Your task to perform on an android device: turn off priority inbox in the gmail app Image 0: 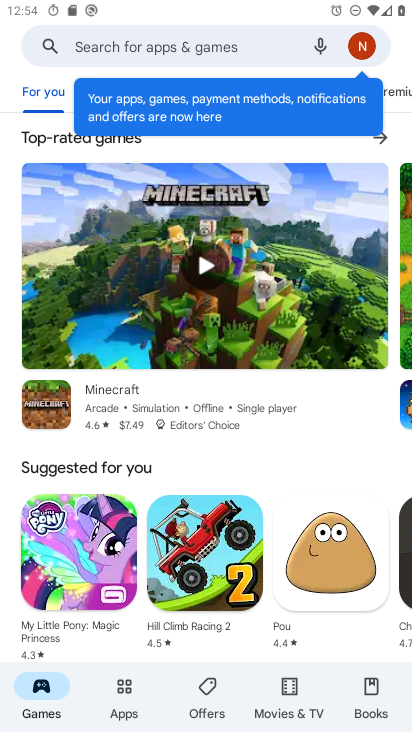
Step 0: press home button
Your task to perform on an android device: turn off priority inbox in the gmail app Image 1: 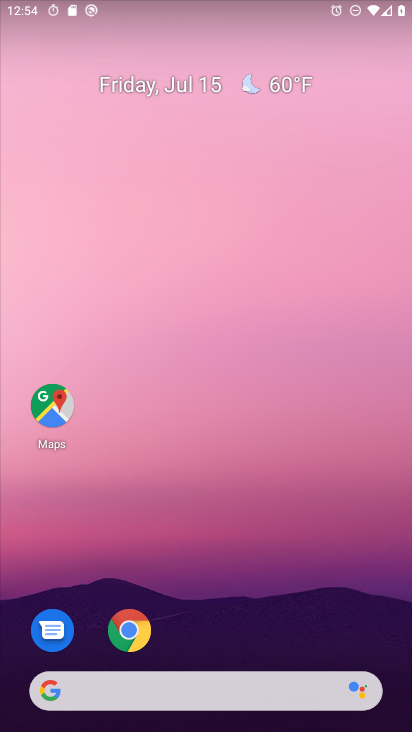
Step 1: drag from (220, 389) to (220, 255)
Your task to perform on an android device: turn off priority inbox in the gmail app Image 2: 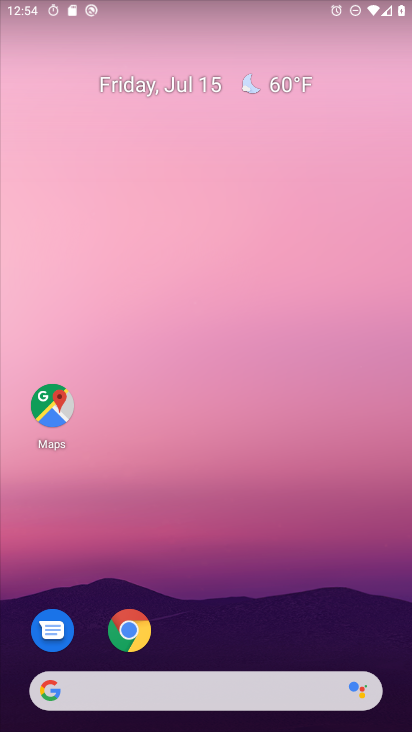
Step 2: drag from (185, 589) to (207, 210)
Your task to perform on an android device: turn off priority inbox in the gmail app Image 3: 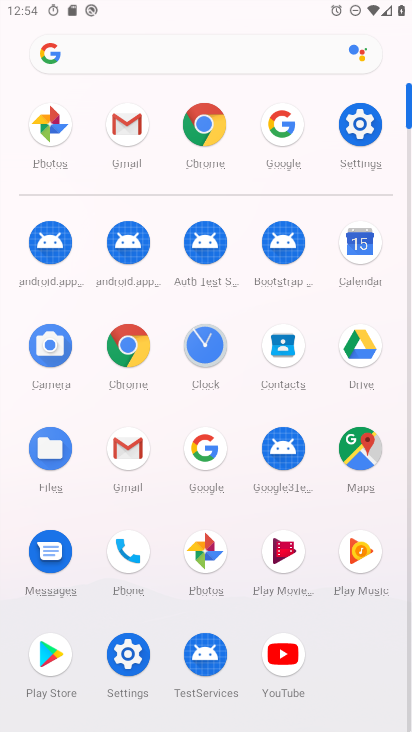
Step 3: click (115, 133)
Your task to perform on an android device: turn off priority inbox in the gmail app Image 4: 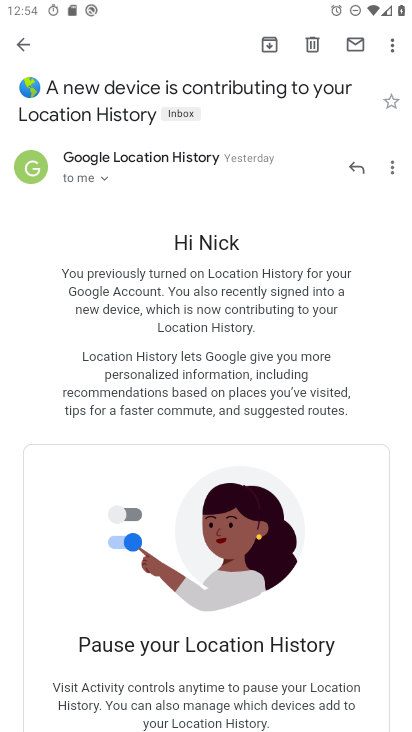
Step 4: click (25, 45)
Your task to perform on an android device: turn off priority inbox in the gmail app Image 5: 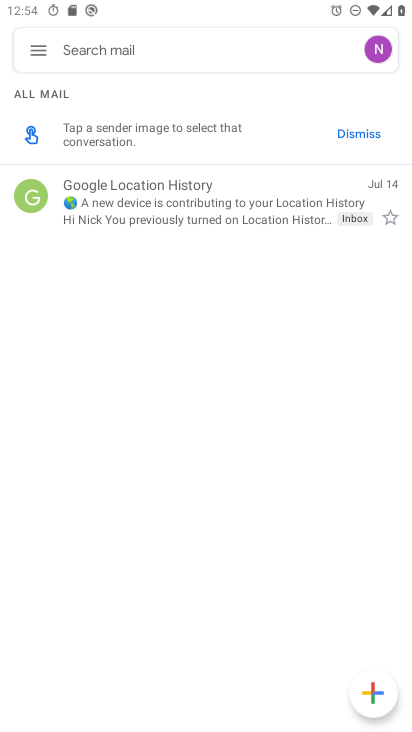
Step 5: click (34, 45)
Your task to perform on an android device: turn off priority inbox in the gmail app Image 6: 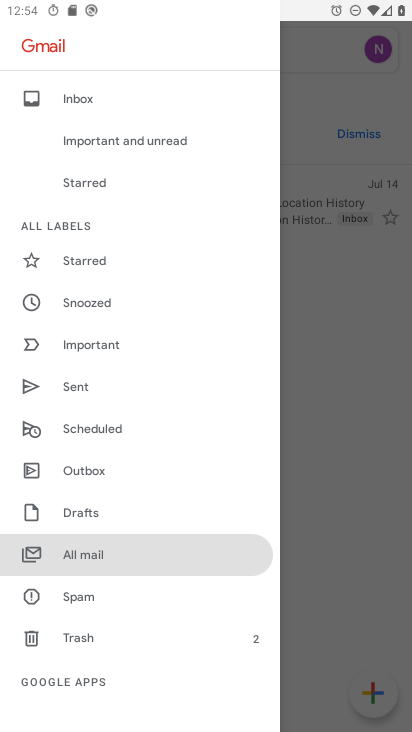
Step 6: drag from (93, 609) to (122, 314)
Your task to perform on an android device: turn off priority inbox in the gmail app Image 7: 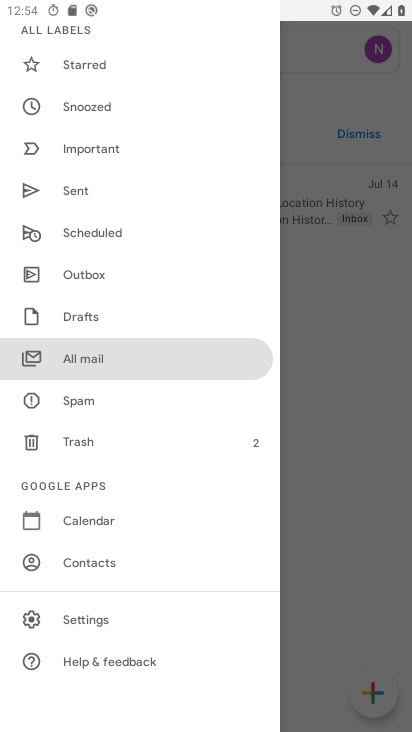
Step 7: click (91, 618)
Your task to perform on an android device: turn off priority inbox in the gmail app Image 8: 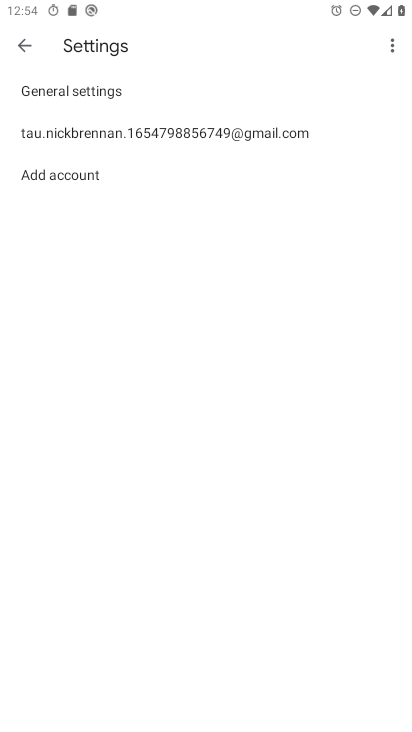
Step 8: click (144, 129)
Your task to perform on an android device: turn off priority inbox in the gmail app Image 9: 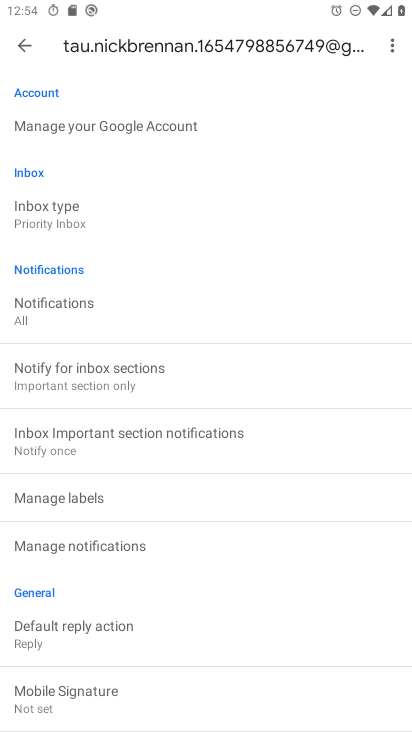
Step 9: drag from (63, 640) to (94, 355)
Your task to perform on an android device: turn off priority inbox in the gmail app Image 10: 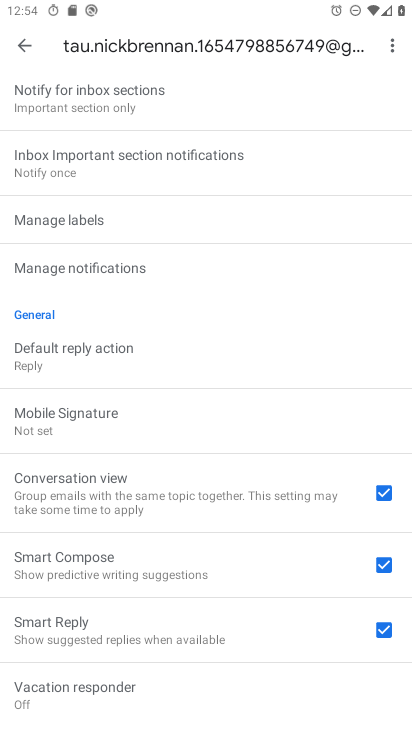
Step 10: drag from (97, 337) to (96, 452)
Your task to perform on an android device: turn off priority inbox in the gmail app Image 11: 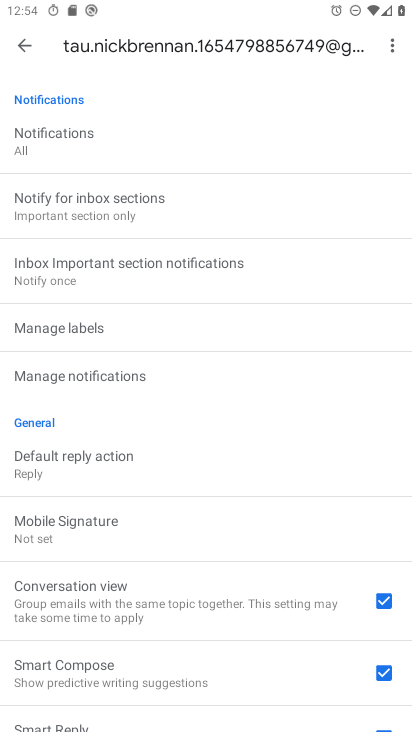
Step 11: drag from (124, 266) to (125, 402)
Your task to perform on an android device: turn off priority inbox in the gmail app Image 12: 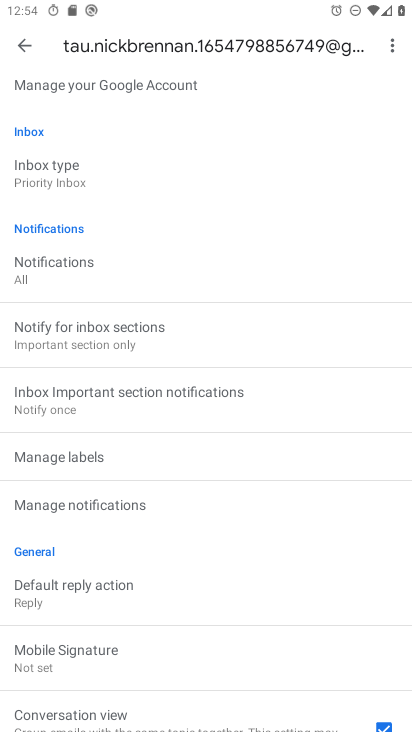
Step 12: click (54, 172)
Your task to perform on an android device: turn off priority inbox in the gmail app Image 13: 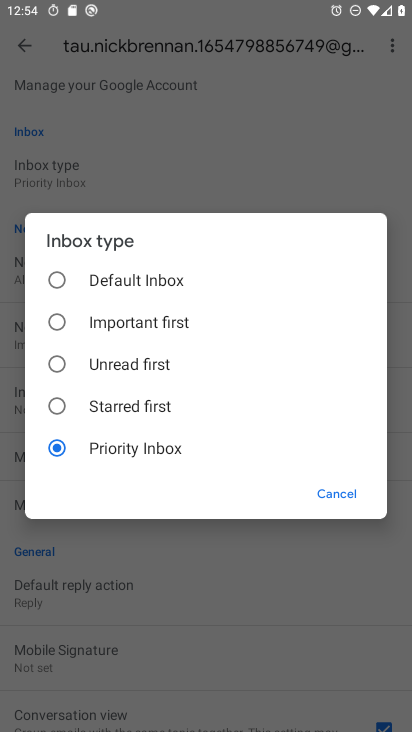
Step 13: click (55, 276)
Your task to perform on an android device: turn off priority inbox in the gmail app Image 14: 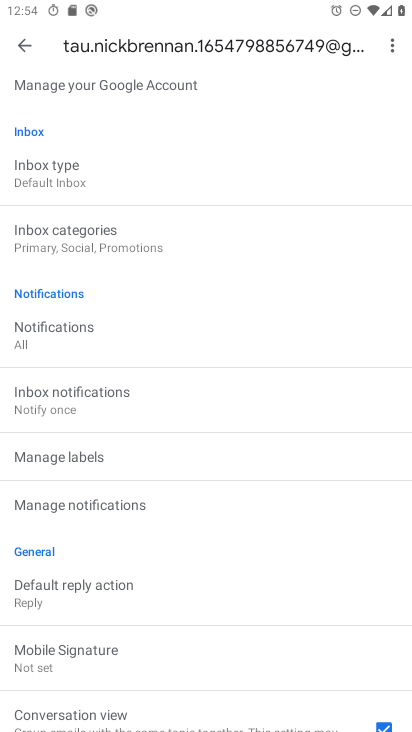
Step 14: task complete